Your task to perform on an android device: check data usage Image 0: 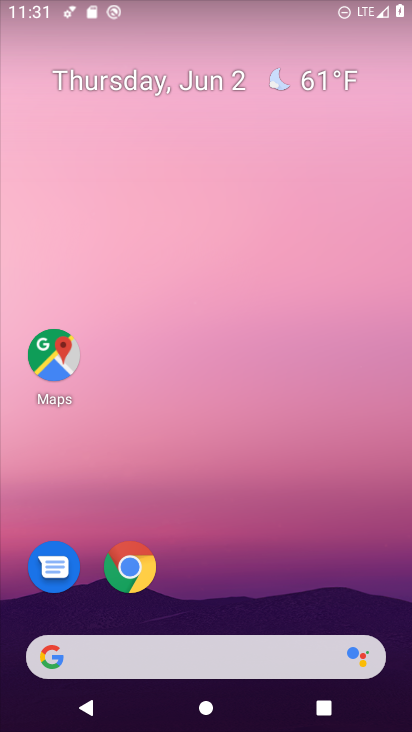
Step 0: drag from (269, 438) to (247, 217)
Your task to perform on an android device: check data usage Image 1: 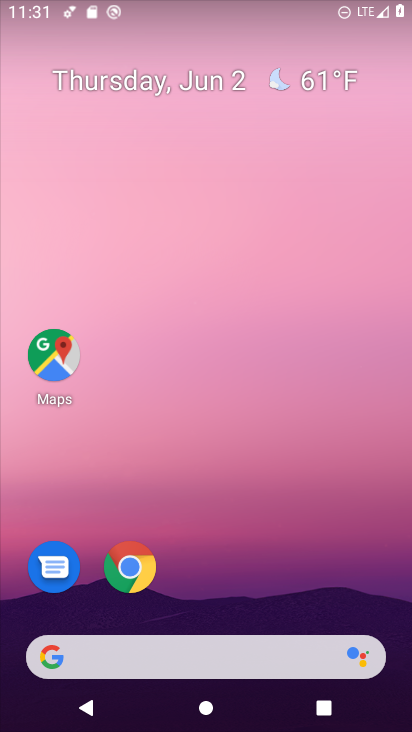
Step 1: drag from (272, 574) to (201, 212)
Your task to perform on an android device: check data usage Image 2: 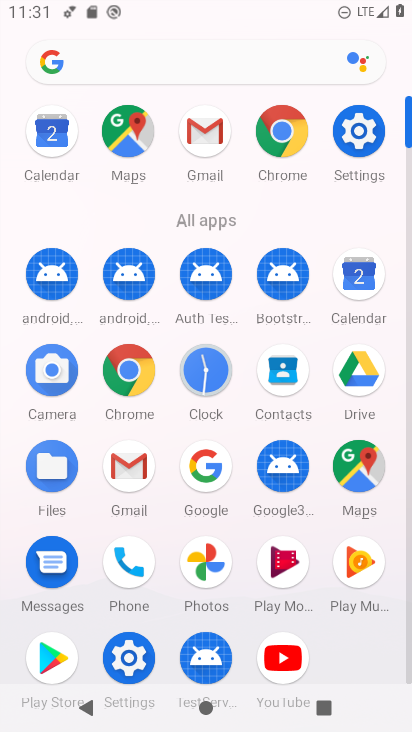
Step 2: click (362, 117)
Your task to perform on an android device: check data usage Image 3: 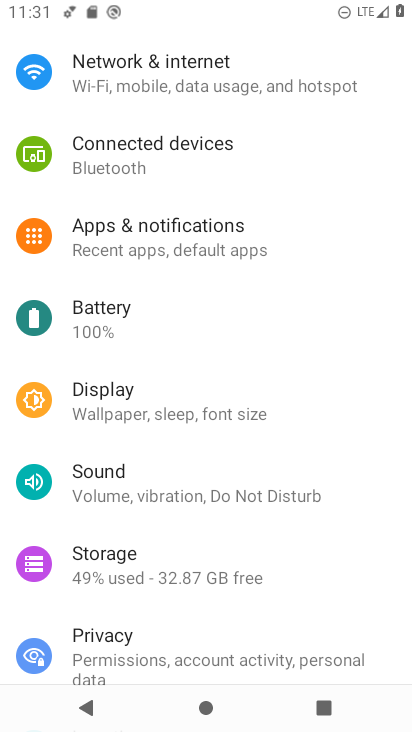
Step 3: click (161, 75)
Your task to perform on an android device: check data usage Image 4: 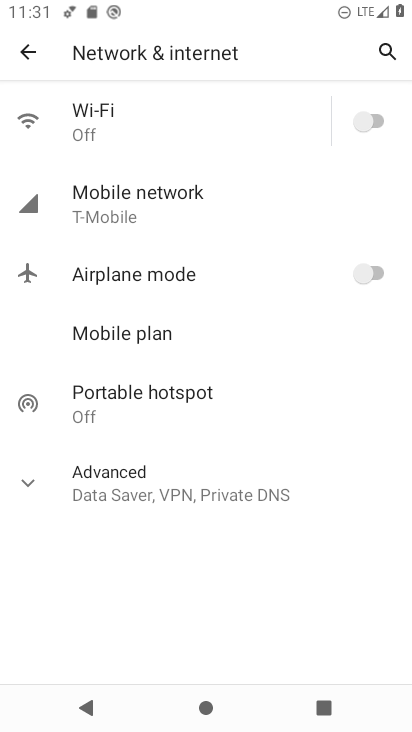
Step 4: click (140, 189)
Your task to perform on an android device: check data usage Image 5: 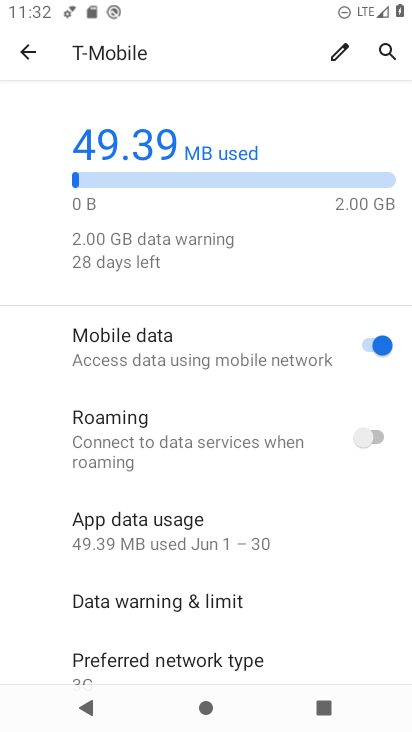
Step 5: task complete